Your task to perform on an android device: Search for Mexican restaurants on Maps Image 0: 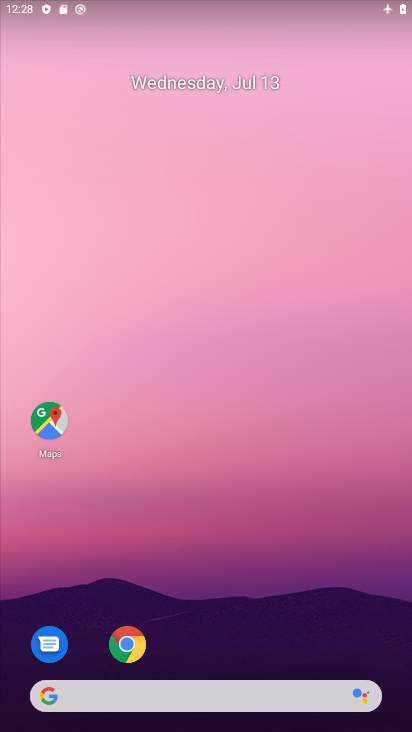
Step 0: click (49, 416)
Your task to perform on an android device: Search for Mexican restaurants on Maps Image 1: 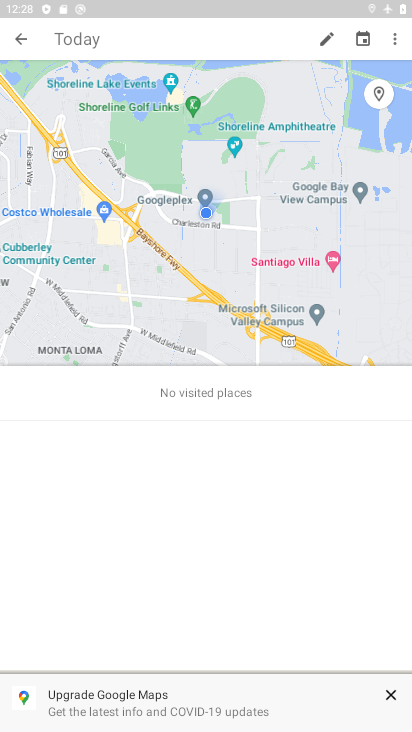
Step 1: click (23, 44)
Your task to perform on an android device: Search for Mexican restaurants on Maps Image 2: 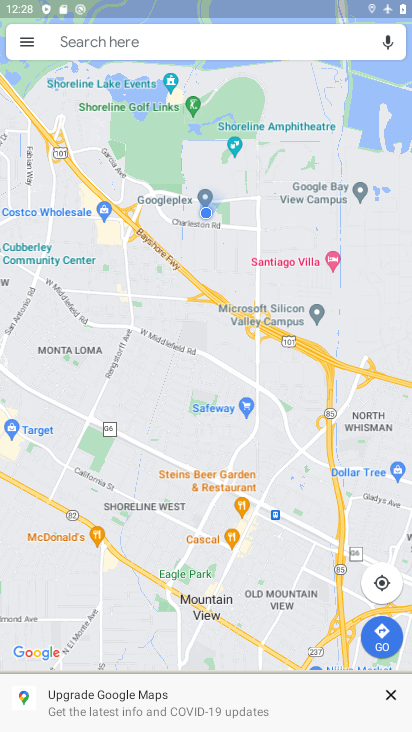
Step 2: click (112, 48)
Your task to perform on an android device: Search for Mexican restaurants on Maps Image 3: 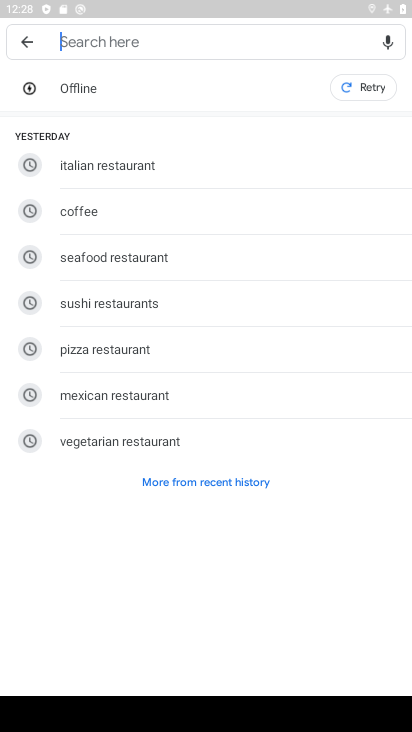
Step 3: type "Mexican restaurants"
Your task to perform on an android device: Search for Mexican restaurants on Maps Image 4: 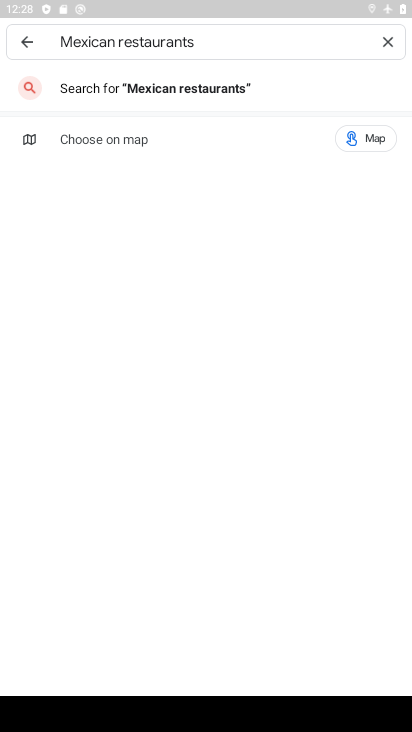
Step 4: press enter
Your task to perform on an android device: Search for Mexican restaurants on Maps Image 5: 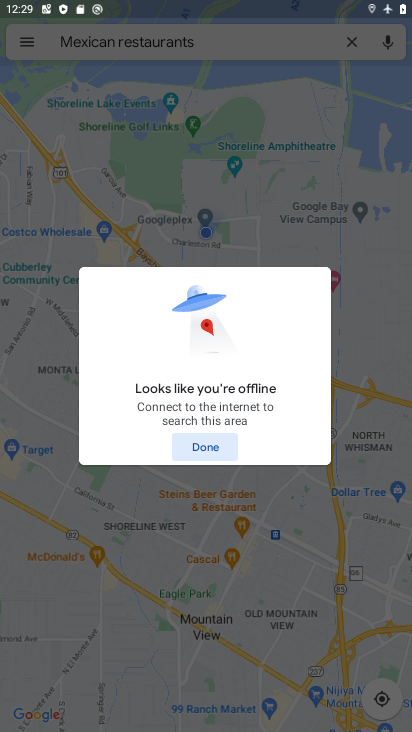
Step 5: task complete